Your task to perform on an android device: Set the phone to "Do not disturb". Image 0: 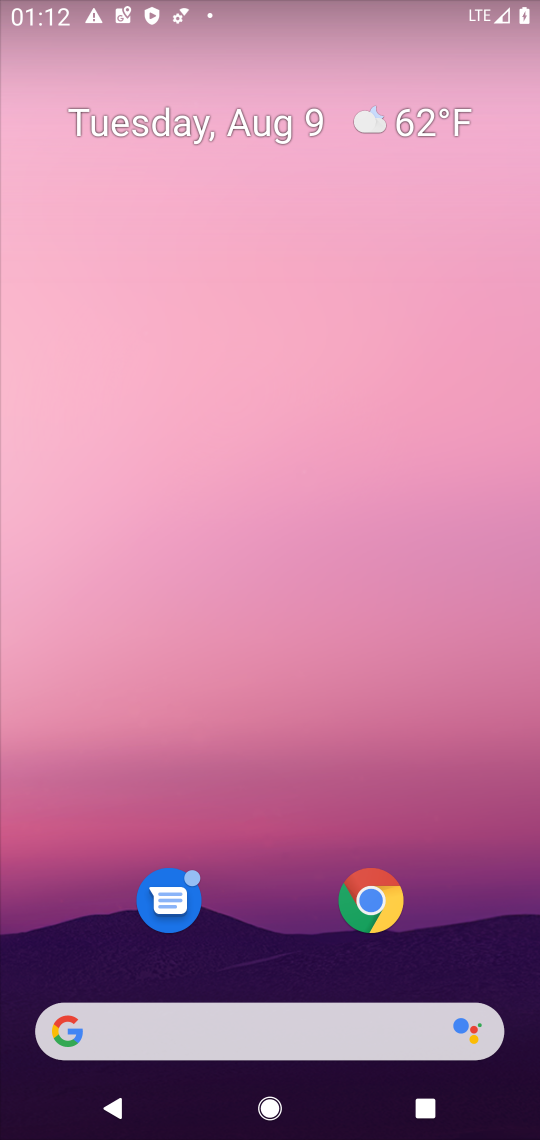
Step 0: drag from (466, 836) to (464, 169)
Your task to perform on an android device: Set the phone to "Do not disturb". Image 1: 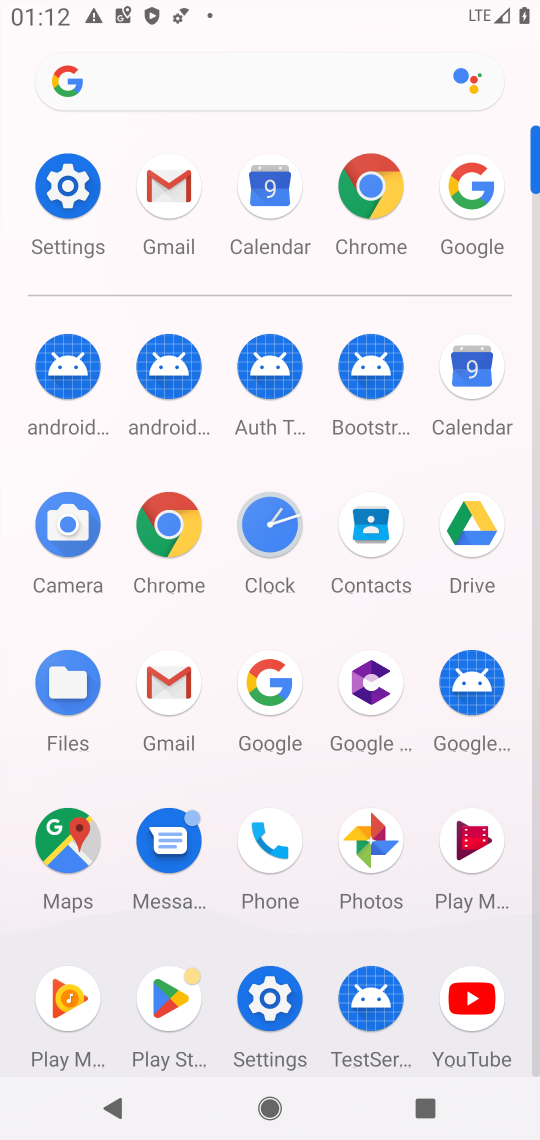
Step 1: click (73, 181)
Your task to perform on an android device: Set the phone to "Do not disturb". Image 2: 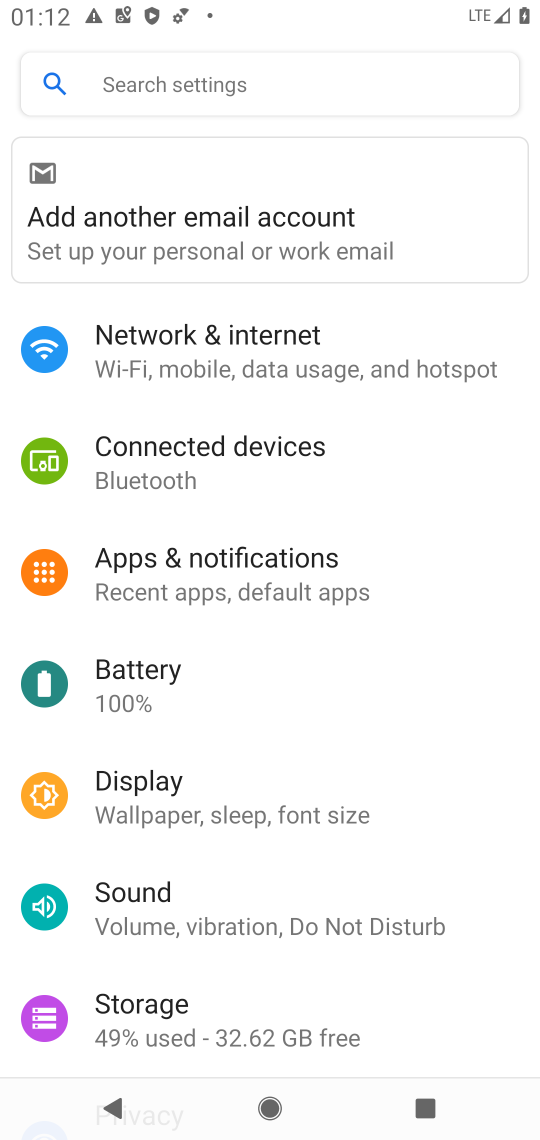
Step 2: drag from (442, 727) to (436, 457)
Your task to perform on an android device: Set the phone to "Do not disturb". Image 3: 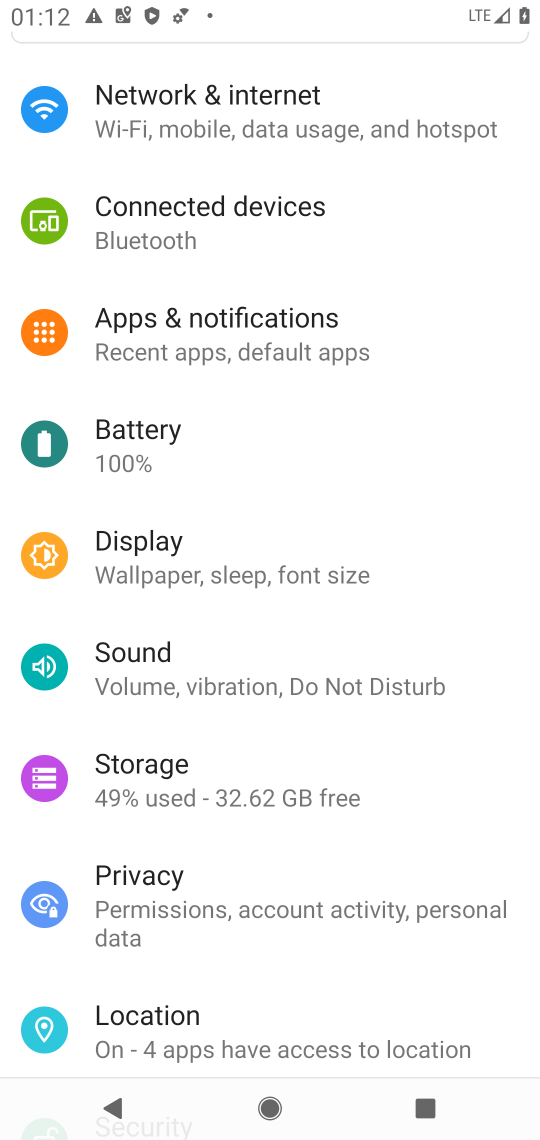
Step 3: drag from (457, 803) to (449, 478)
Your task to perform on an android device: Set the phone to "Do not disturb". Image 4: 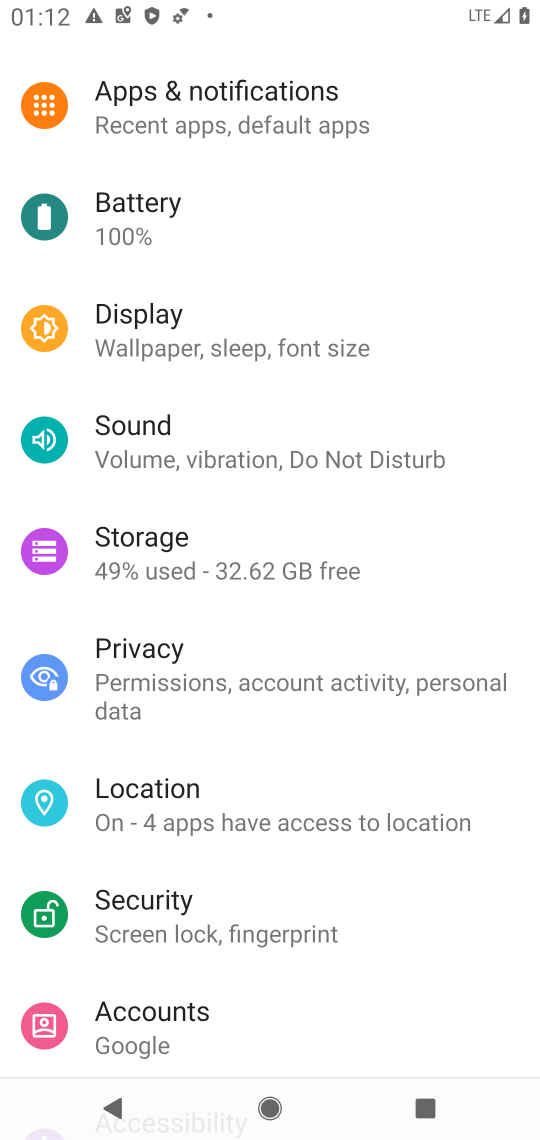
Step 4: drag from (478, 879) to (472, 555)
Your task to perform on an android device: Set the phone to "Do not disturb". Image 5: 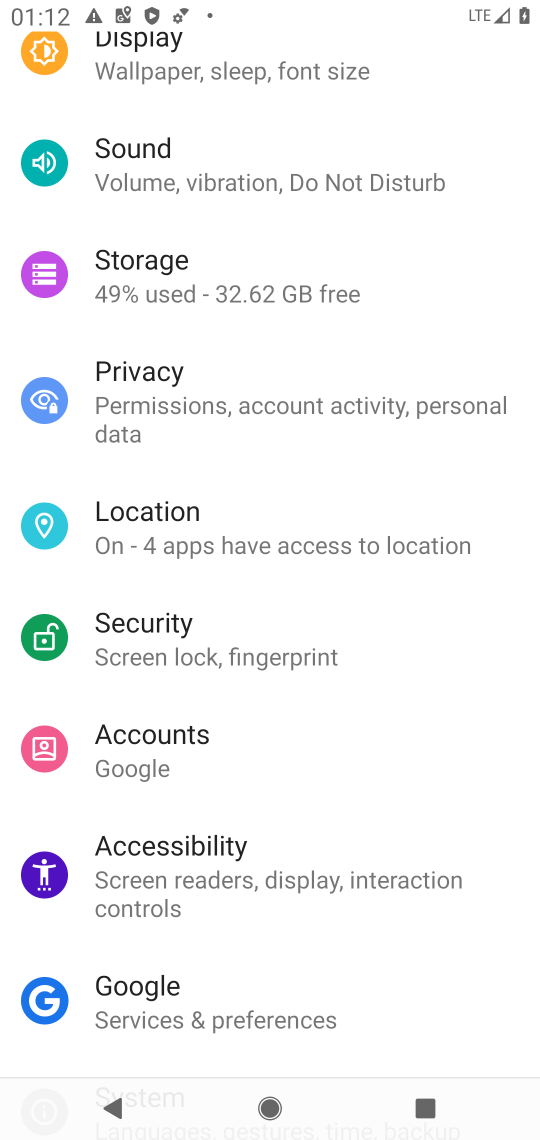
Step 5: drag from (429, 774) to (447, 446)
Your task to perform on an android device: Set the phone to "Do not disturb". Image 6: 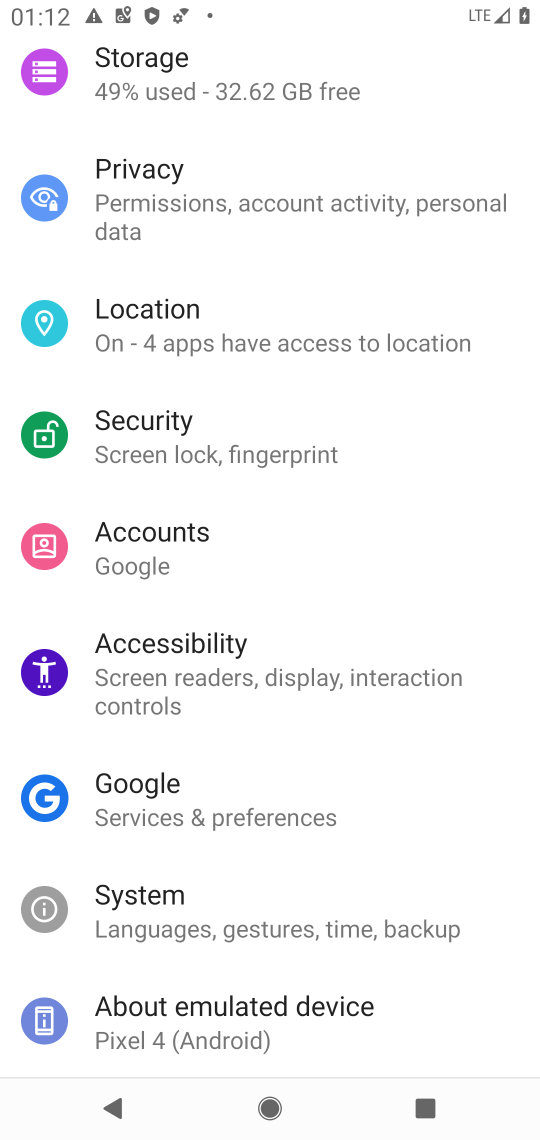
Step 6: drag from (445, 790) to (448, 501)
Your task to perform on an android device: Set the phone to "Do not disturb". Image 7: 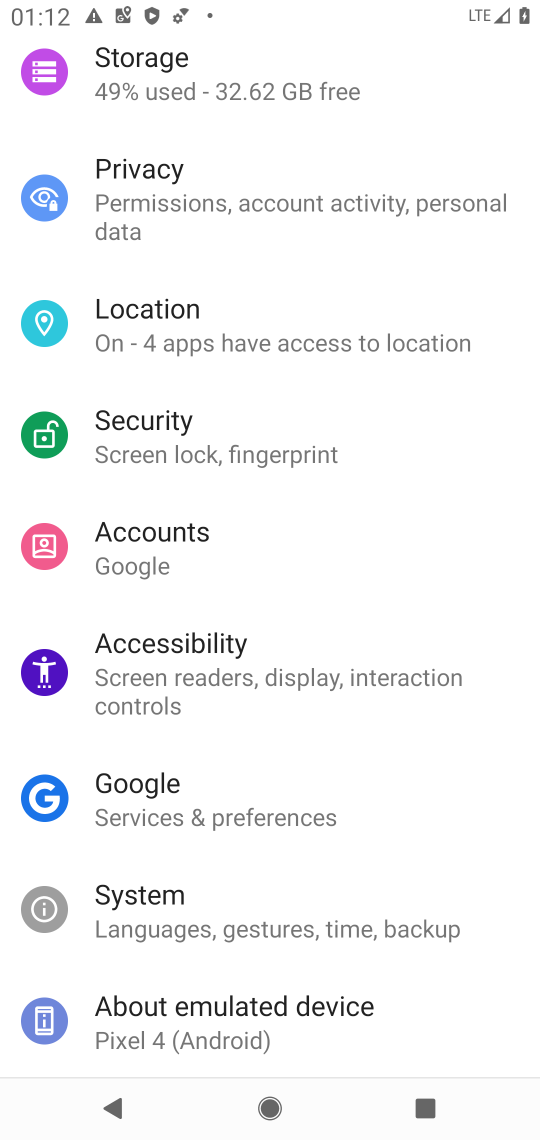
Step 7: drag from (449, 445) to (449, 565)
Your task to perform on an android device: Set the phone to "Do not disturb". Image 8: 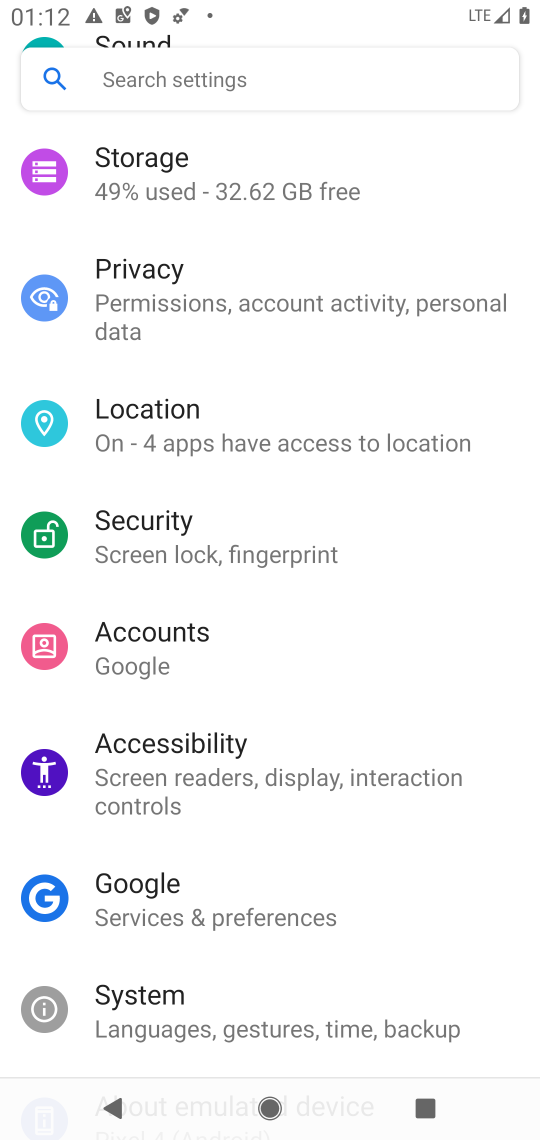
Step 8: drag from (500, 397) to (456, 671)
Your task to perform on an android device: Set the phone to "Do not disturb". Image 9: 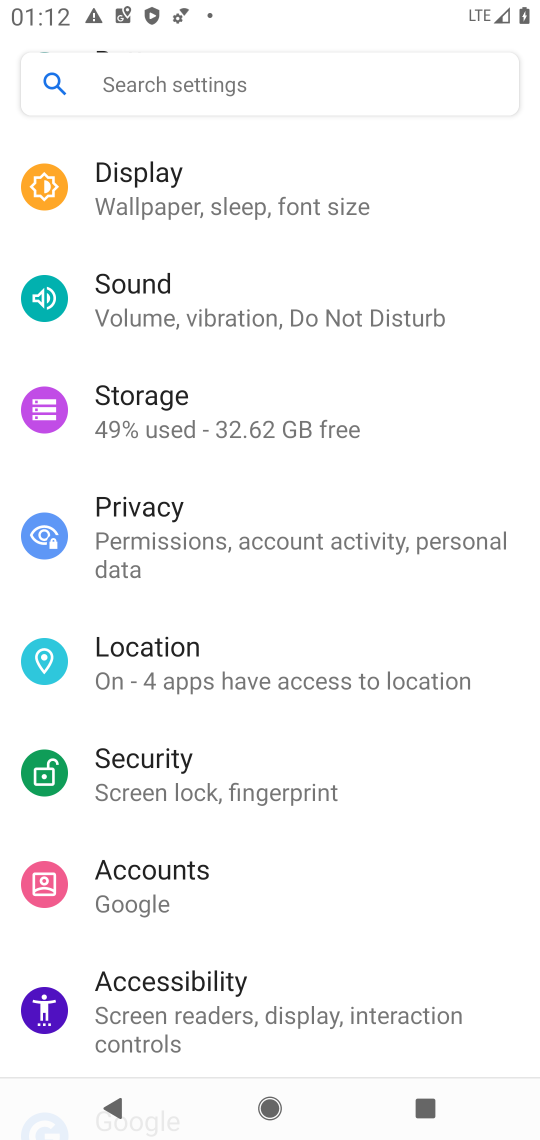
Step 9: drag from (458, 214) to (452, 431)
Your task to perform on an android device: Set the phone to "Do not disturb". Image 10: 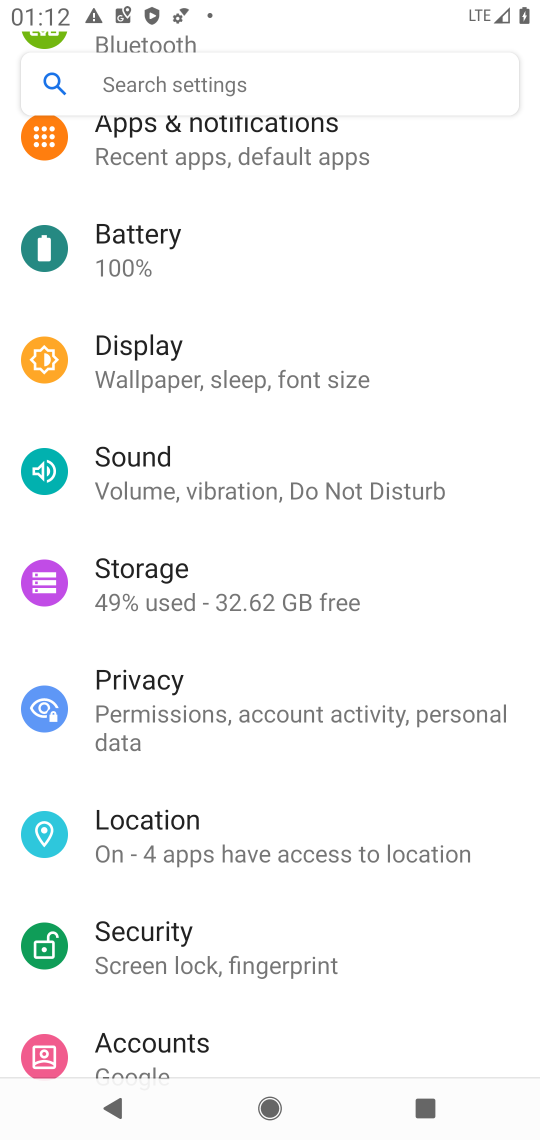
Step 10: click (429, 478)
Your task to perform on an android device: Set the phone to "Do not disturb". Image 11: 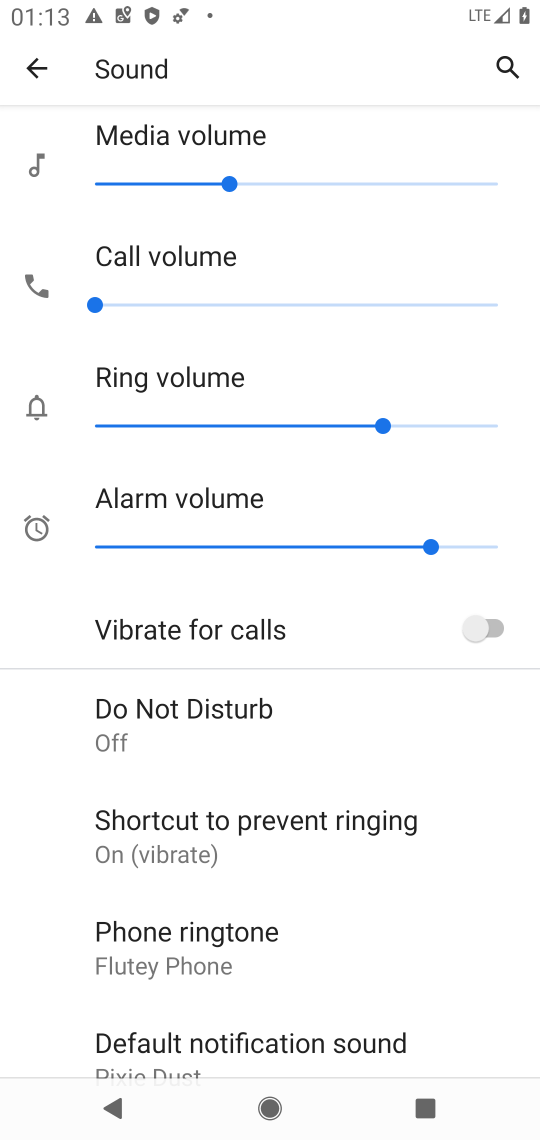
Step 11: click (183, 713)
Your task to perform on an android device: Set the phone to "Do not disturb". Image 12: 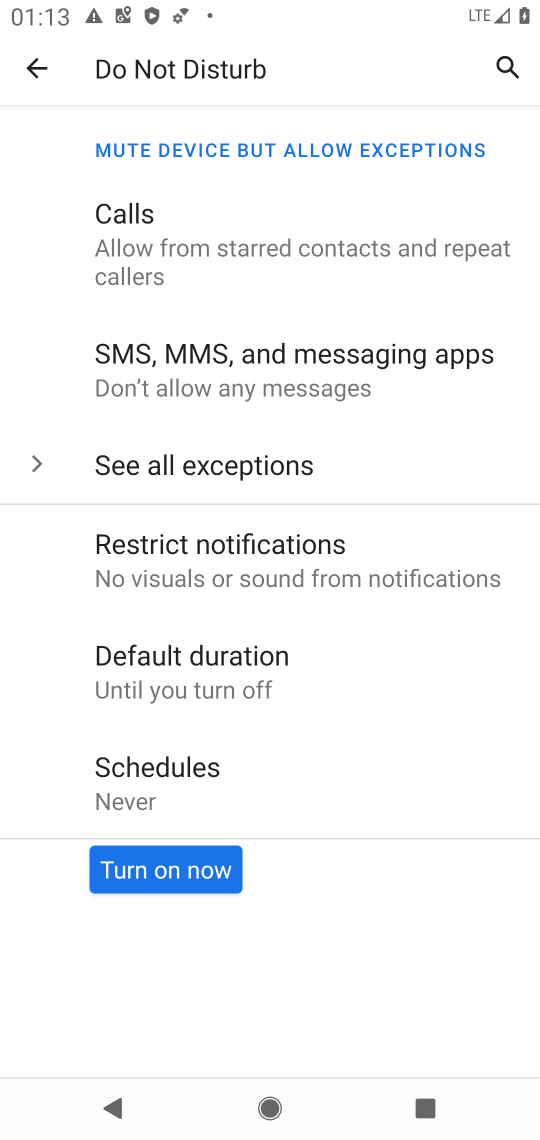
Step 12: click (215, 860)
Your task to perform on an android device: Set the phone to "Do not disturb". Image 13: 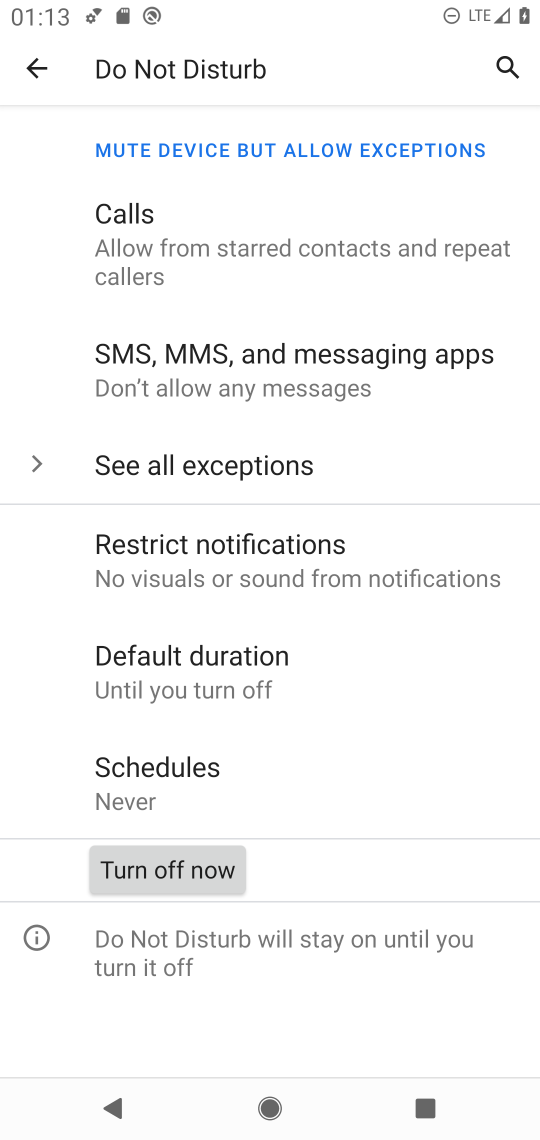
Step 13: task complete